Your task to perform on an android device: Open Google Maps Image 0: 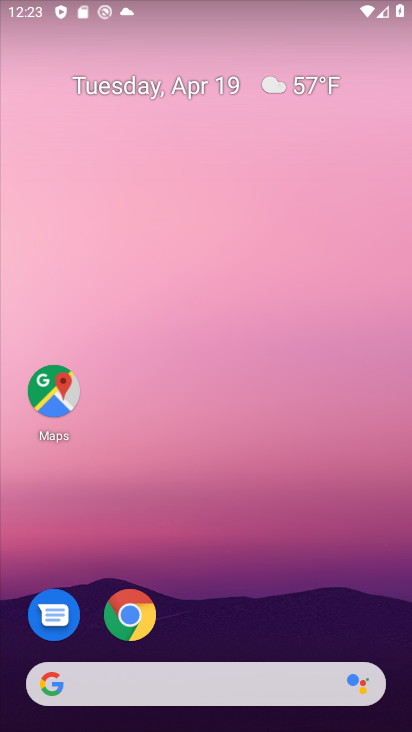
Step 0: click (63, 404)
Your task to perform on an android device: Open Google Maps Image 1: 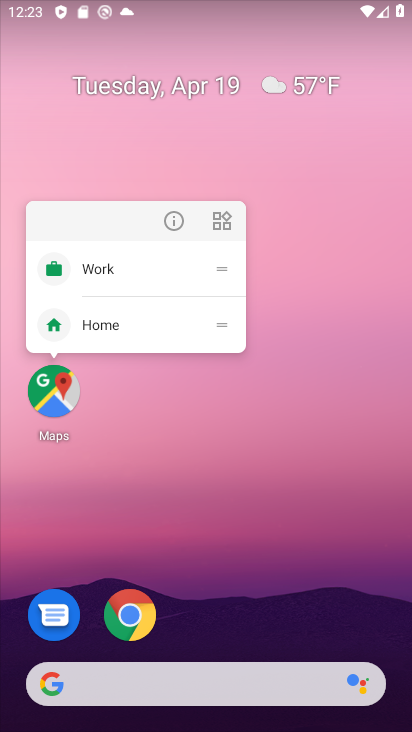
Step 1: click (63, 404)
Your task to perform on an android device: Open Google Maps Image 2: 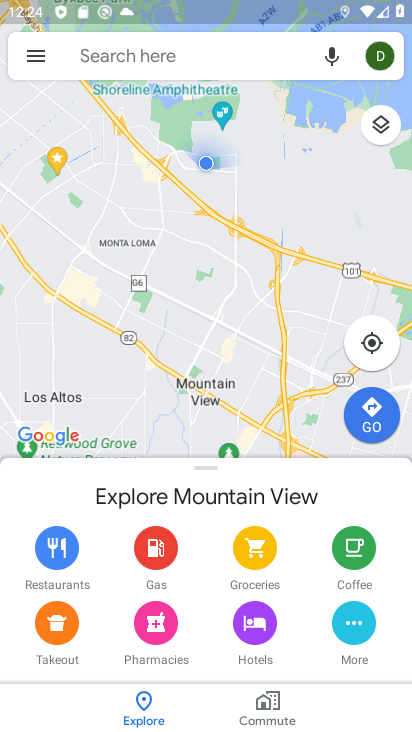
Step 2: task complete